Your task to perform on an android device: check android version Image 0: 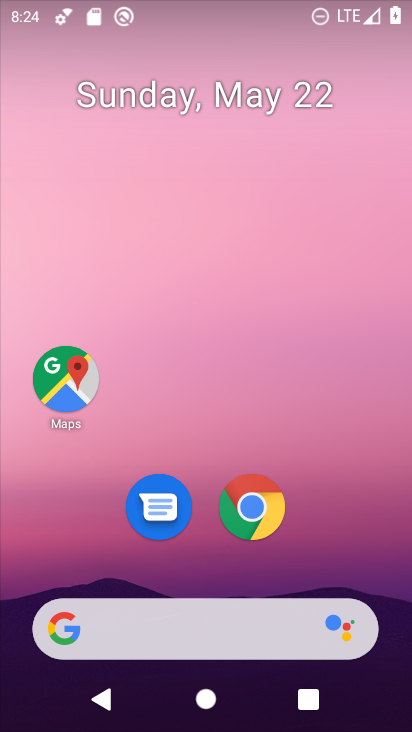
Step 0: drag from (228, 522) to (182, 16)
Your task to perform on an android device: check android version Image 1: 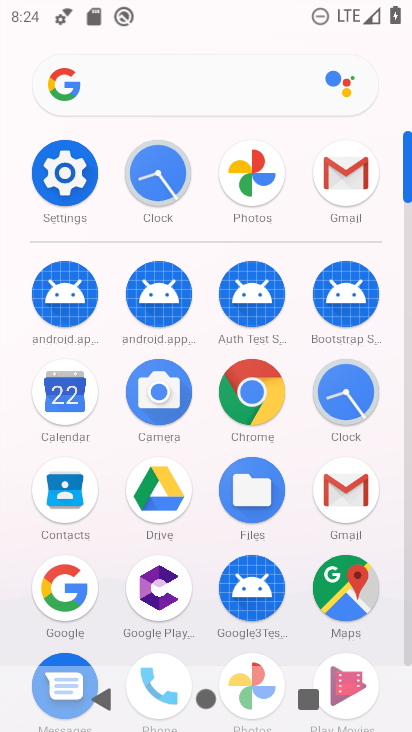
Step 1: click (52, 181)
Your task to perform on an android device: check android version Image 2: 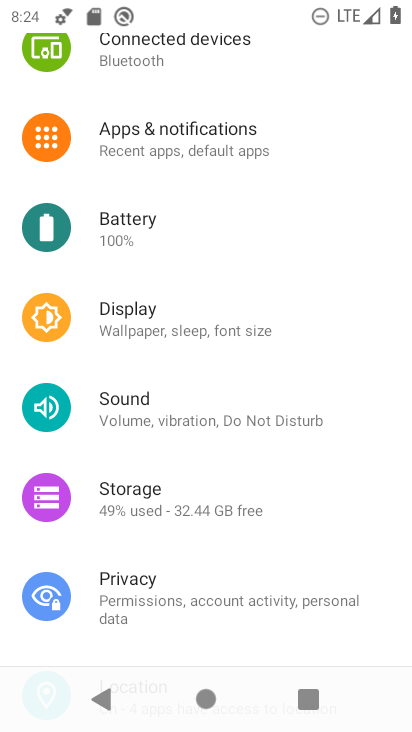
Step 2: drag from (133, 622) to (149, 12)
Your task to perform on an android device: check android version Image 3: 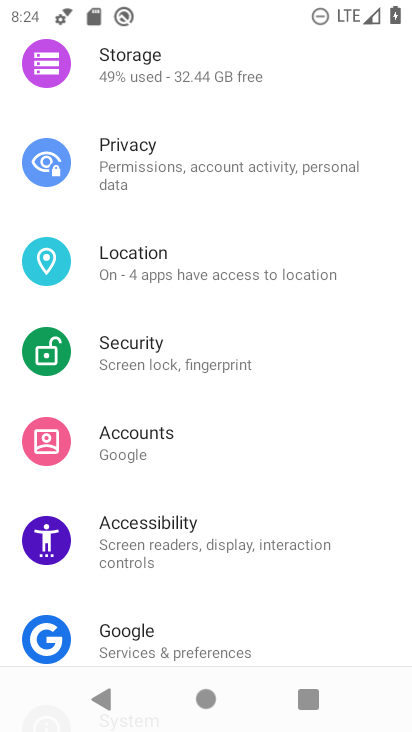
Step 3: drag from (231, 525) to (239, 19)
Your task to perform on an android device: check android version Image 4: 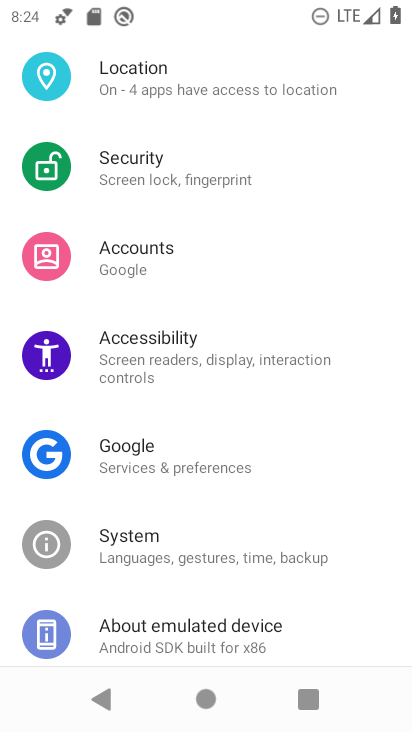
Step 4: drag from (167, 598) to (239, 16)
Your task to perform on an android device: check android version Image 5: 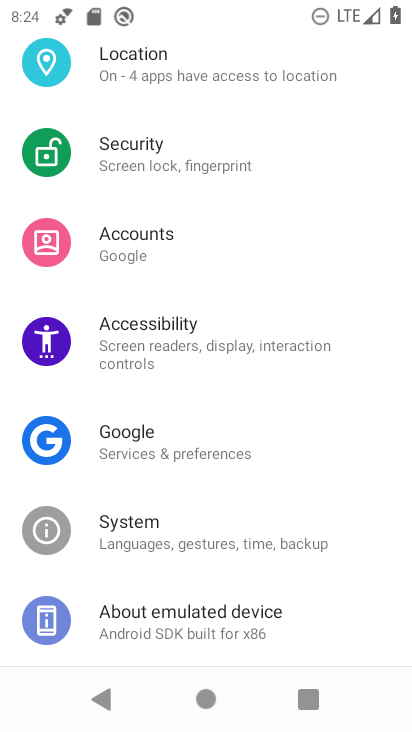
Step 5: click (183, 625)
Your task to perform on an android device: check android version Image 6: 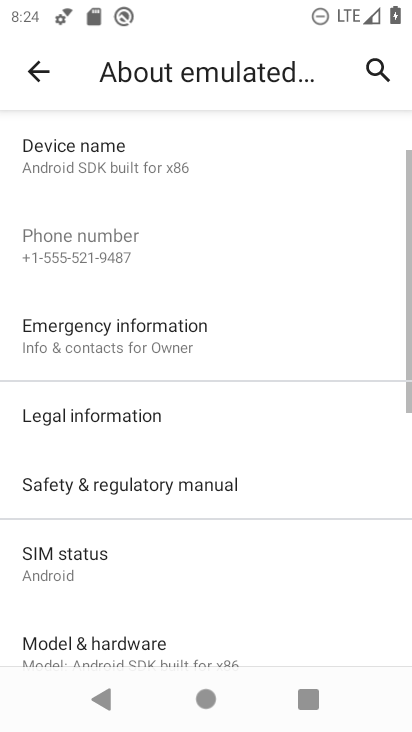
Step 6: task complete